Your task to perform on an android device: toggle show notifications on the lock screen Image 0: 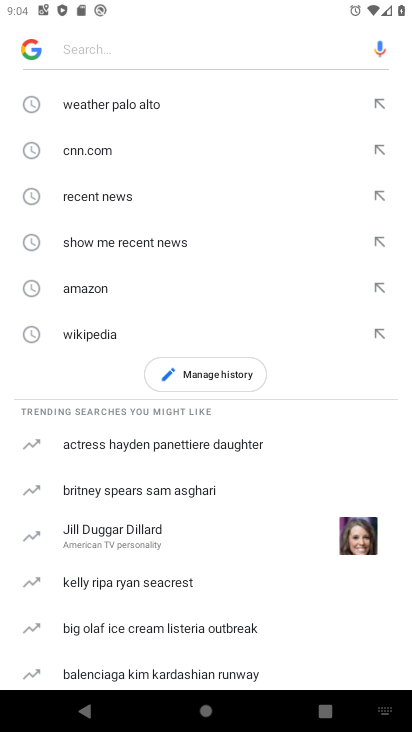
Step 0: press home button
Your task to perform on an android device: toggle show notifications on the lock screen Image 1: 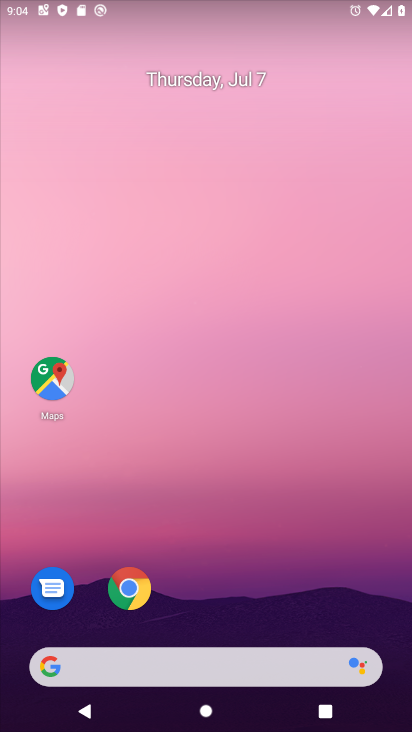
Step 1: drag from (217, 623) to (244, 73)
Your task to perform on an android device: toggle show notifications on the lock screen Image 2: 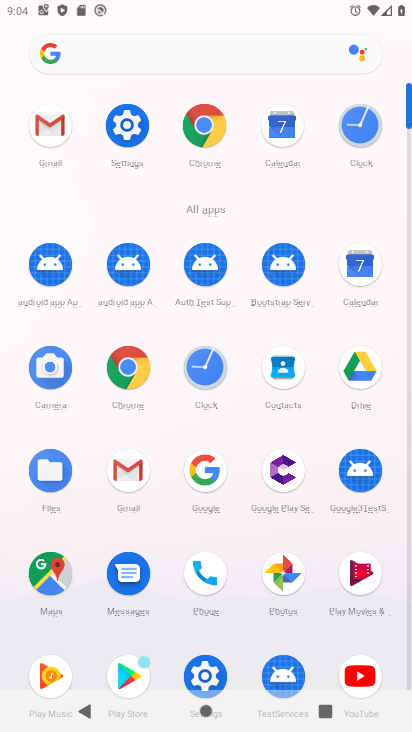
Step 2: click (123, 115)
Your task to perform on an android device: toggle show notifications on the lock screen Image 3: 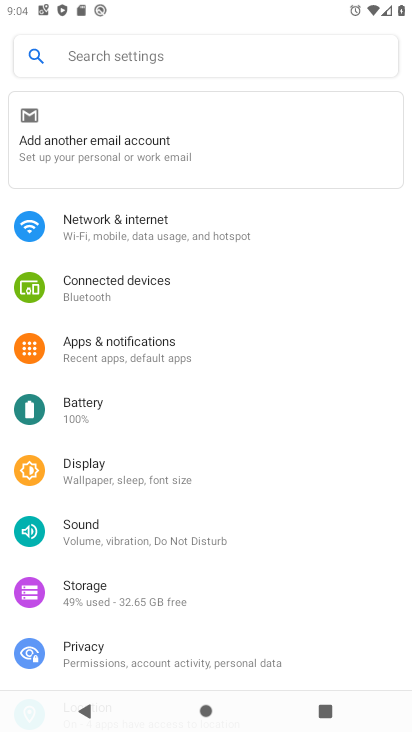
Step 3: click (172, 344)
Your task to perform on an android device: toggle show notifications on the lock screen Image 4: 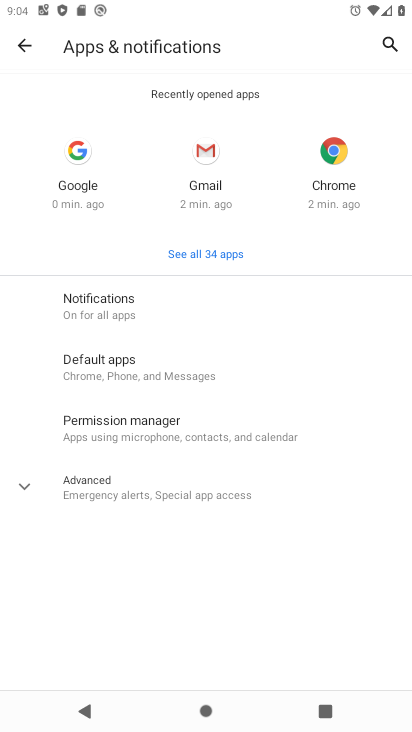
Step 4: click (129, 297)
Your task to perform on an android device: toggle show notifications on the lock screen Image 5: 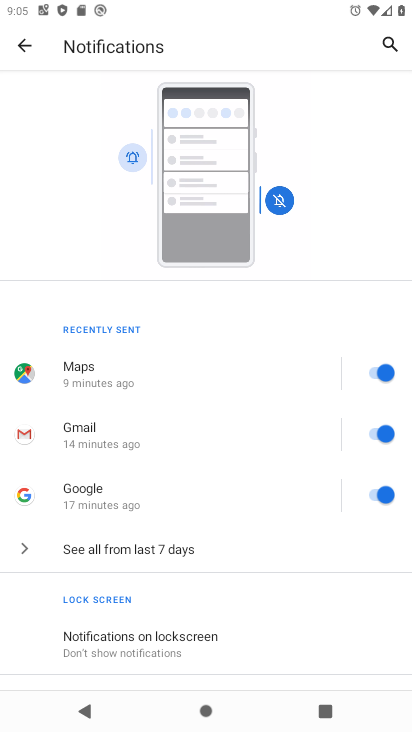
Step 5: click (199, 645)
Your task to perform on an android device: toggle show notifications on the lock screen Image 6: 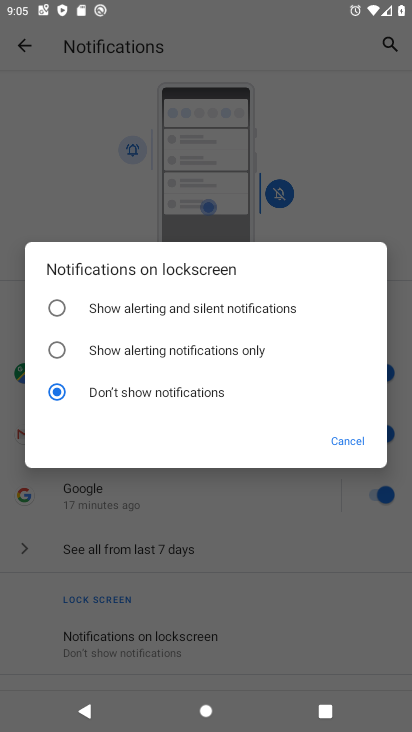
Step 6: click (57, 303)
Your task to perform on an android device: toggle show notifications on the lock screen Image 7: 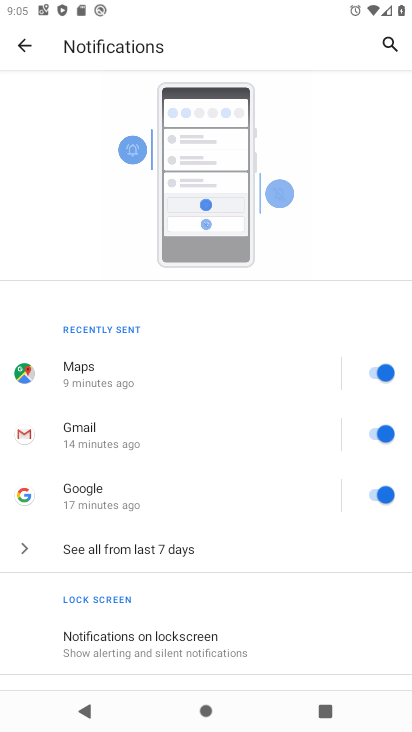
Step 7: task complete